Your task to perform on an android device: change the clock display to analog Image 0: 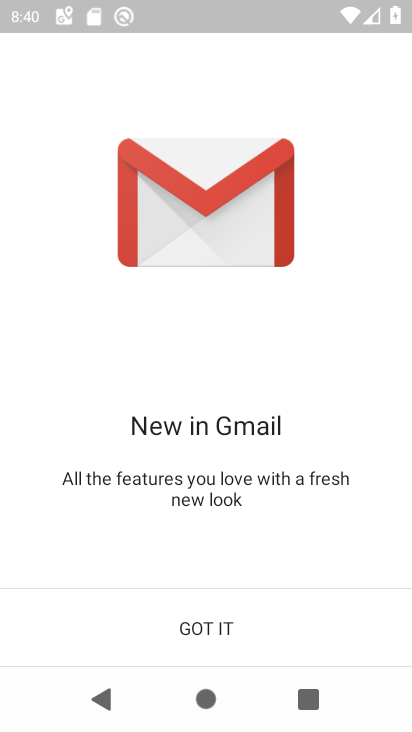
Step 0: press home button
Your task to perform on an android device: change the clock display to analog Image 1: 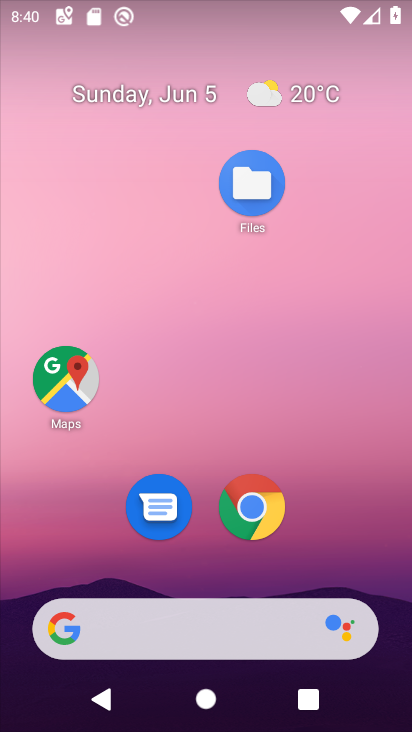
Step 1: drag from (228, 572) to (164, 42)
Your task to perform on an android device: change the clock display to analog Image 2: 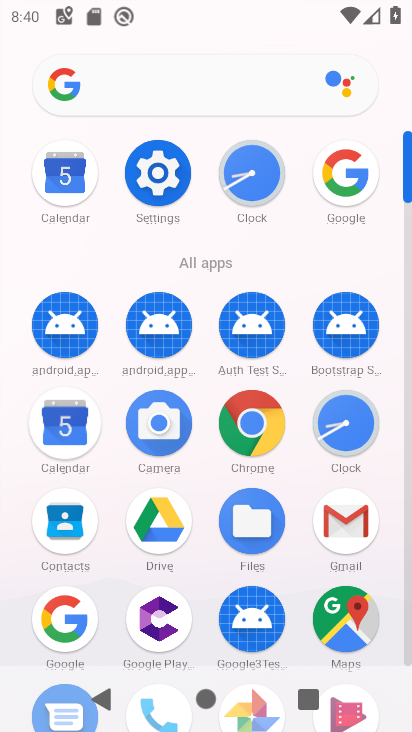
Step 2: click (365, 450)
Your task to perform on an android device: change the clock display to analog Image 3: 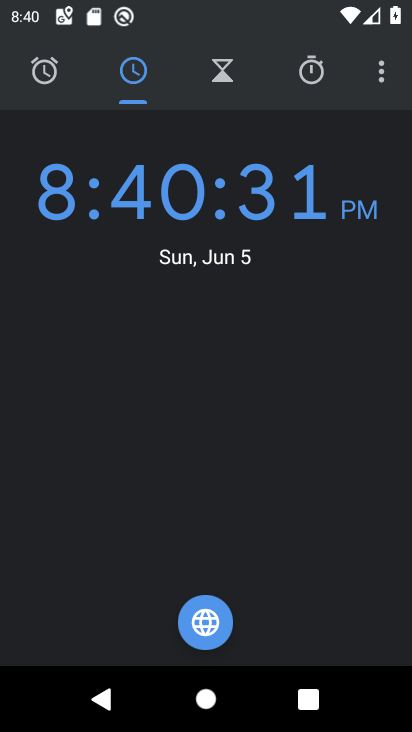
Step 3: click (388, 70)
Your task to perform on an android device: change the clock display to analog Image 4: 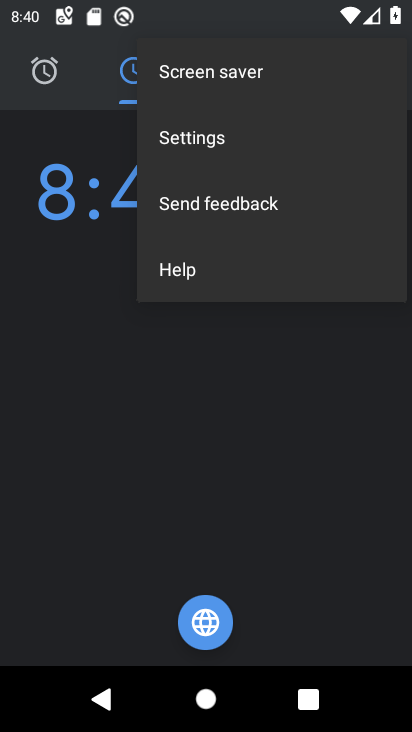
Step 4: click (185, 140)
Your task to perform on an android device: change the clock display to analog Image 5: 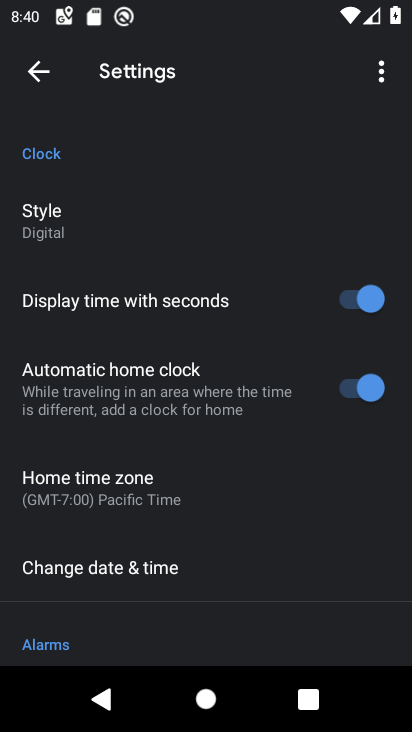
Step 5: click (30, 222)
Your task to perform on an android device: change the clock display to analog Image 6: 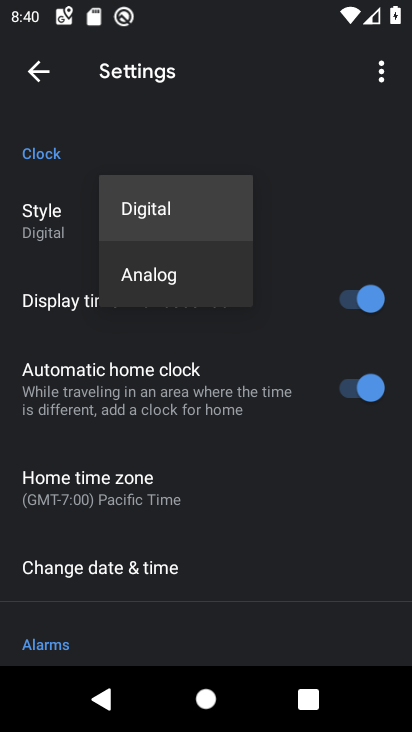
Step 6: click (138, 267)
Your task to perform on an android device: change the clock display to analog Image 7: 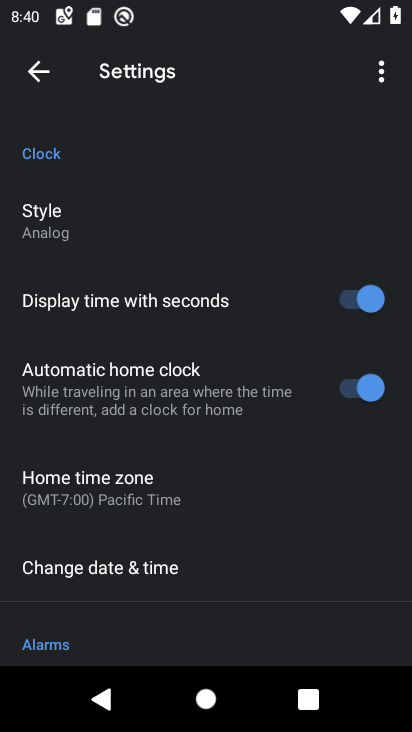
Step 7: task complete